Your task to perform on an android device: Open Google Chrome and click the shortcut for Amazon.com Image 0: 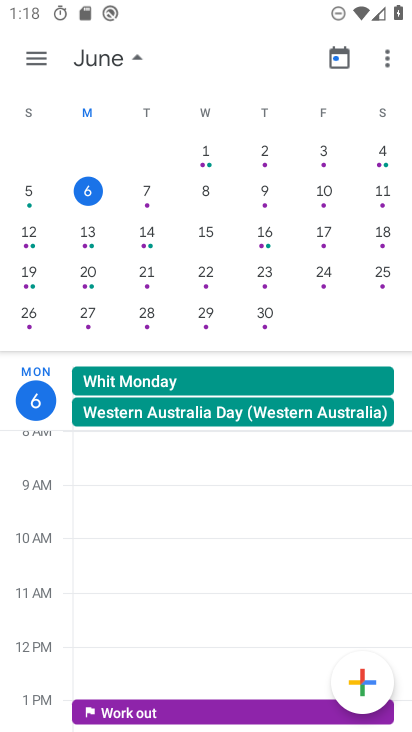
Step 0: press home button
Your task to perform on an android device: Open Google Chrome and click the shortcut for Amazon.com Image 1: 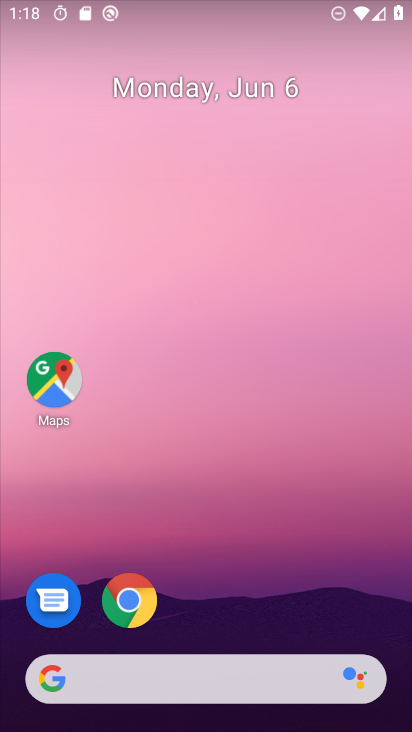
Step 1: click (141, 613)
Your task to perform on an android device: Open Google Chrome and click the shortcut for Amazon.com Image 2: 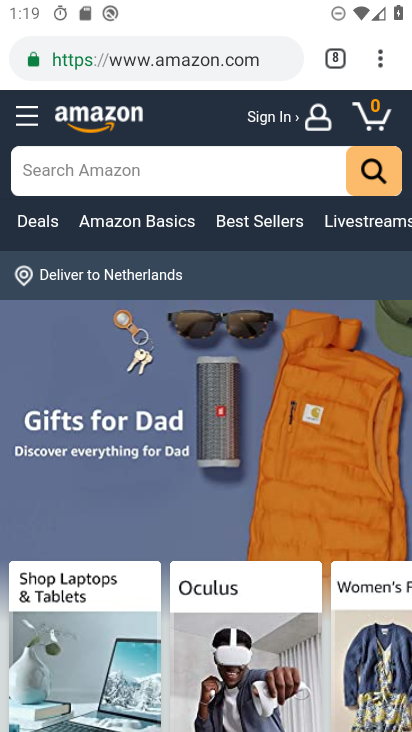
Step 2: task complete